Your task to perform on an android device: Go to battery settings Image 0: 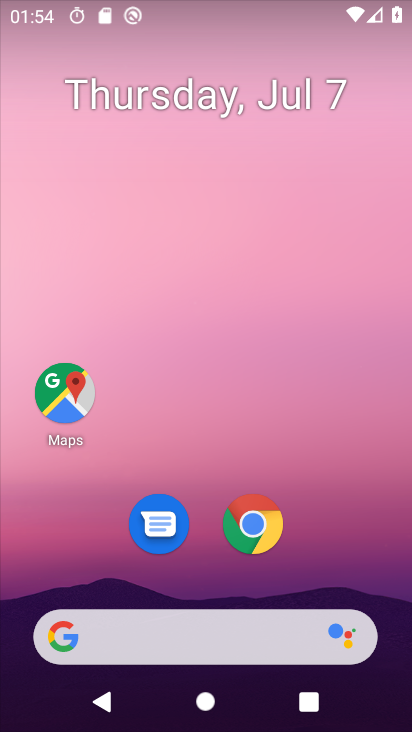
Step 0: drag from (274, 429) to (262, 1)
Your task to perform on an android device: Go to battery settings Image 1: 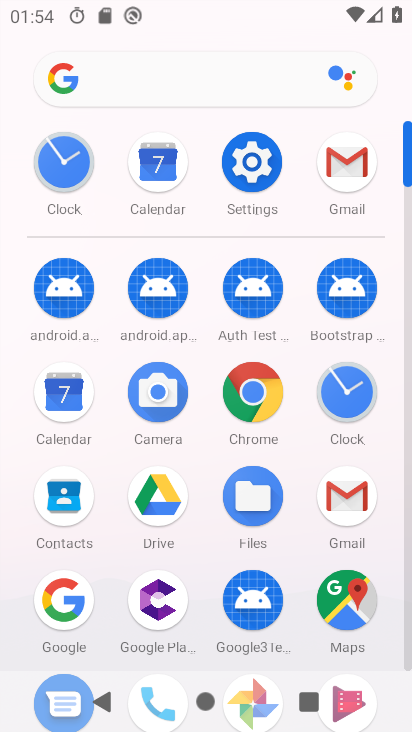
Step 1: click (251, 158)
Your task to perform on an android device: Go to battery settings Image 2: 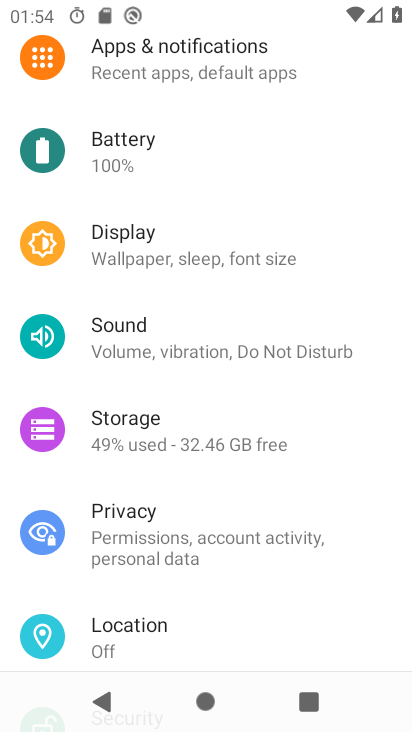
Step 2: click (145, 152)
Your task to perform on an android device: Go to battery settings Image 3: 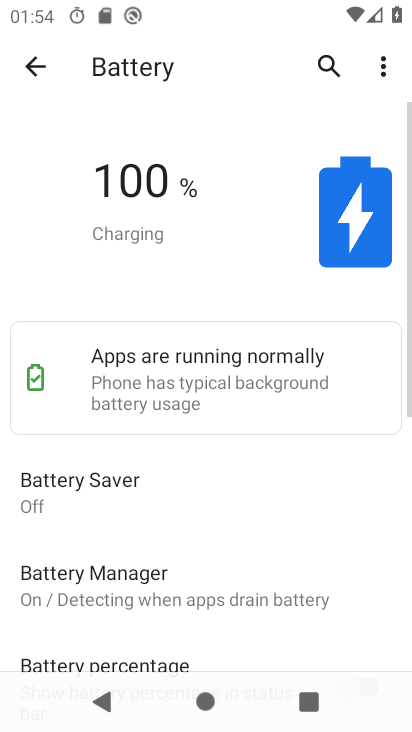
Step 3: task complete